Your task to perform on an android device: see creations saved in the google photos Image 0: 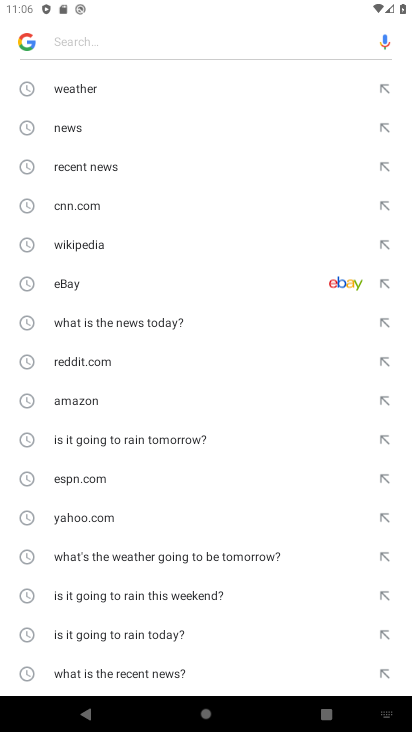
Step 0: press home button
Your task to perform on an android device: see creations saved in the google photos Image 1: 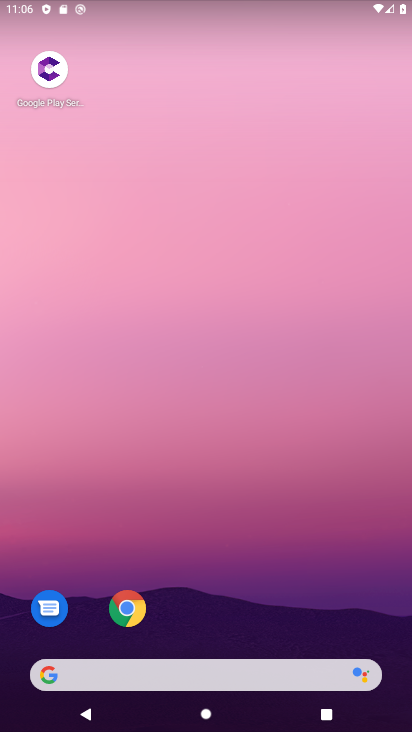
Step 1: drag from (253, 541) to (153, 228)
Your task to perform on an android device: see creations saved in the google photos Image 2: 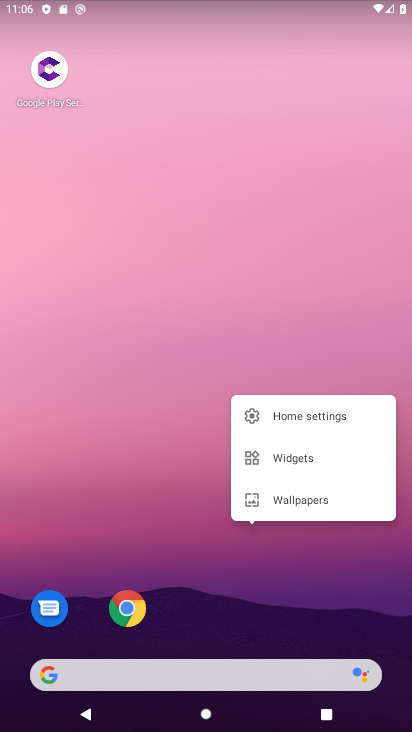
Step 2: click (139, 341)
Your task to perform on an android device: see creations saved in the google photos Image 3: 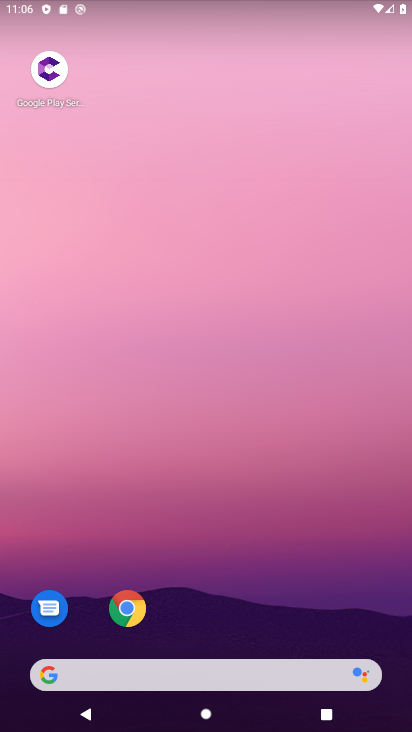
Step 3: drag from (229, 566) to (220, 103)
Your task to perform on an android device: see creations saved in the google photos Image 4: 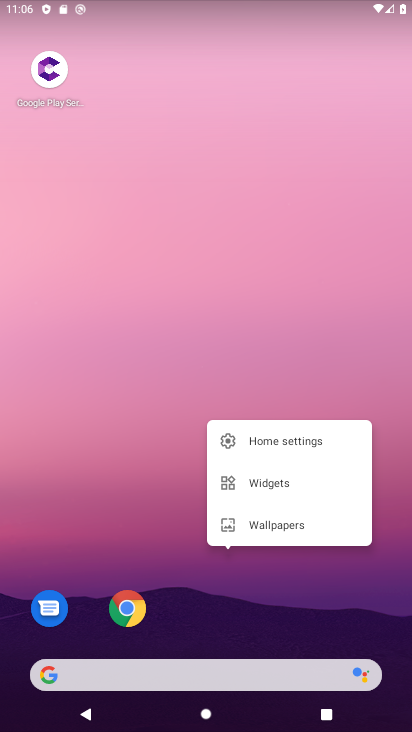
Step 4: click (236, 392)
Your task to perform on an android device: see creations saved in the google photos Image 5: 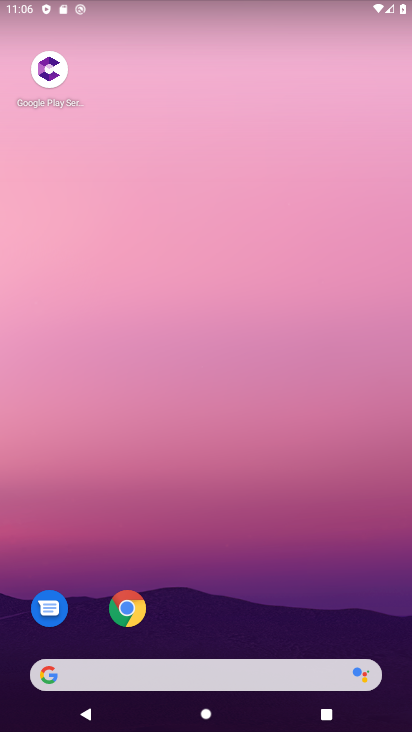
Step 5: task complete